Your task to perform on an android device: all mails in gmail Image 0: 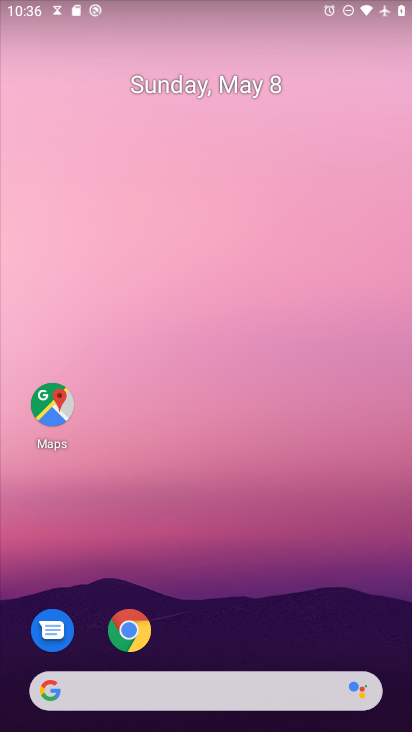
Step 0: drag from (176, 696) to (405, 81)
Your task to perform on an android device: all mails in gmail Image 1: 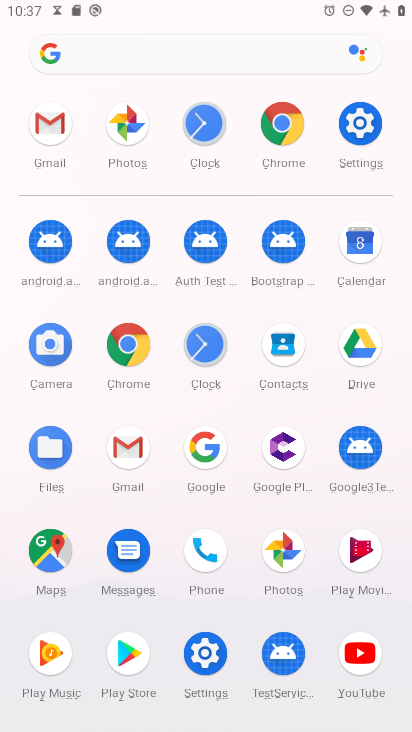
Step 1: click (54, 128)
Your task to perform on an android device: all mails in gmail Image 2: 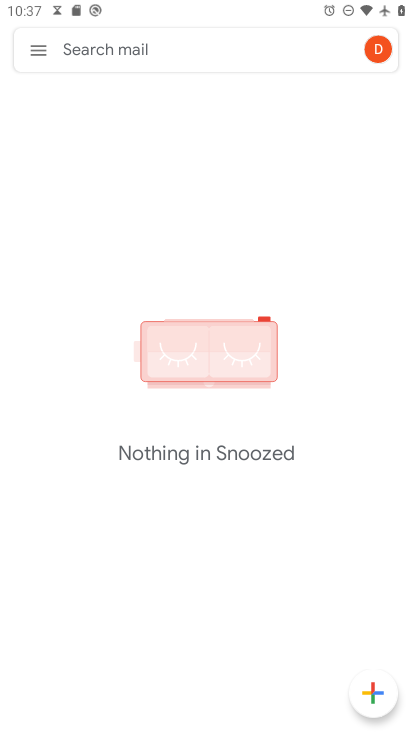
Step 2: click (39, 50)
Your task to perform on an android device: all mails in gmail Image 3: 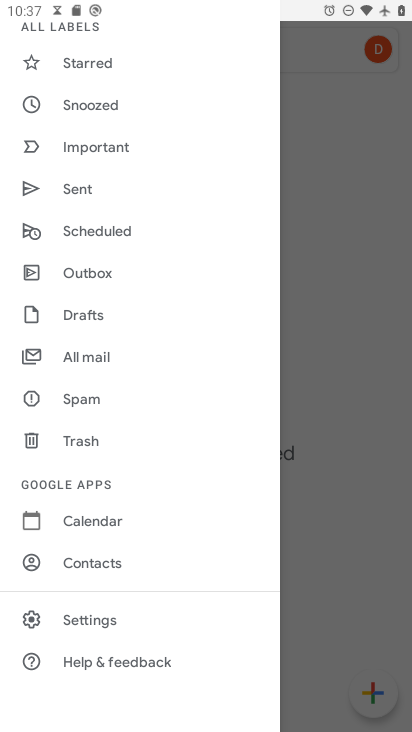
Step 3: click (86, 352)
Your task to perform on an android device: all mails in gmail Image 4: 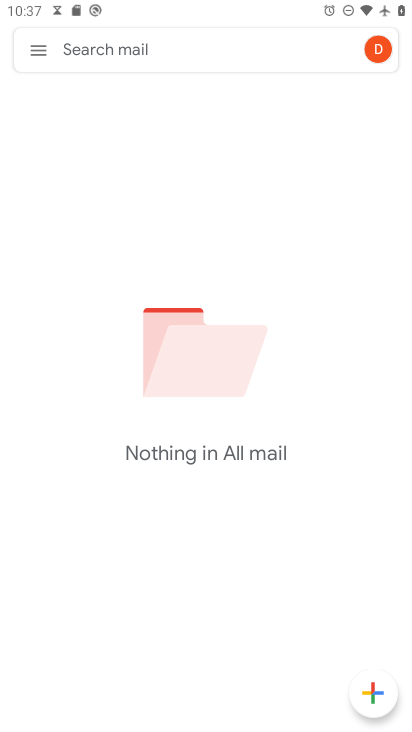
Step 4: task complete